Your task to perform on an android device: Open Google Chrome and open the bookmarks view Image 0: 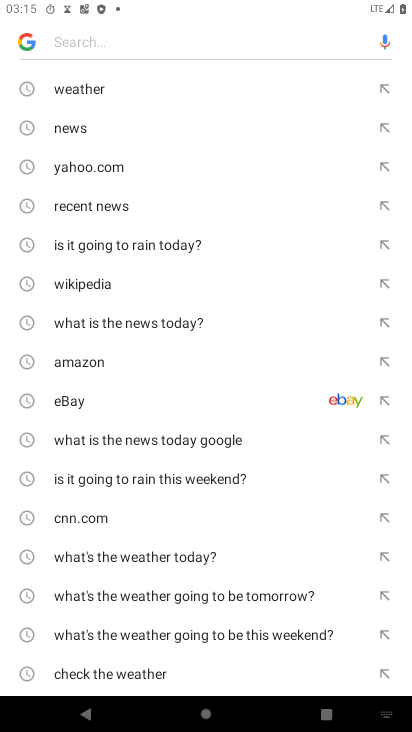
Step 0: press home button
Your task to perform on an android device: Open Google Chrome and open the bookmarks view Image 1: 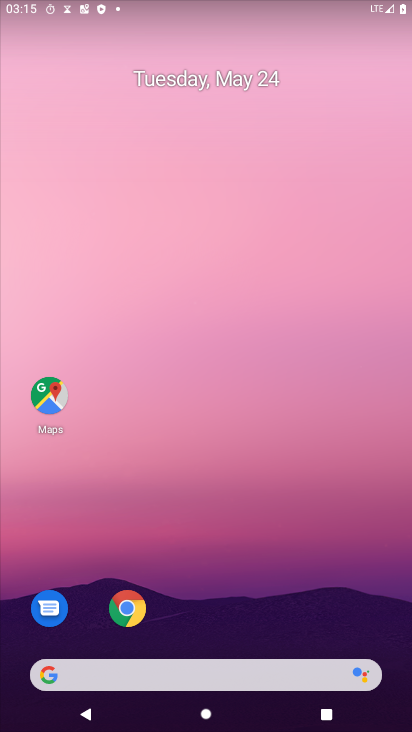
Step 1: drag from (233, 625) to (171, 148)
Your task to perform on an android device: Open Google Chrome and open the bookmarks view Image 2: 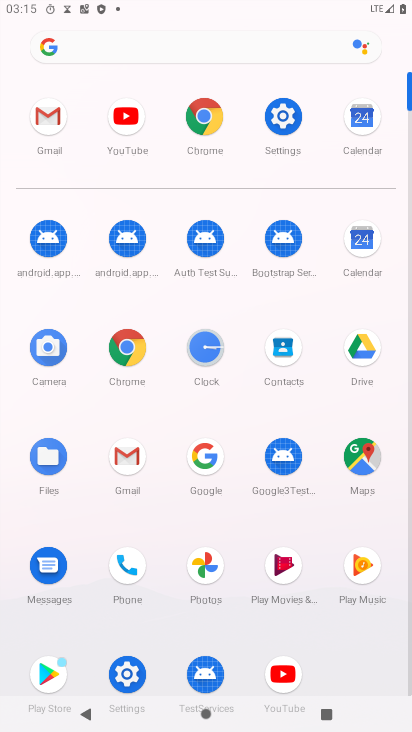
Step 2: click (203, 118)
Your task to perform on an android device: Open Google Chrome and open the bookmarks view Image 3: 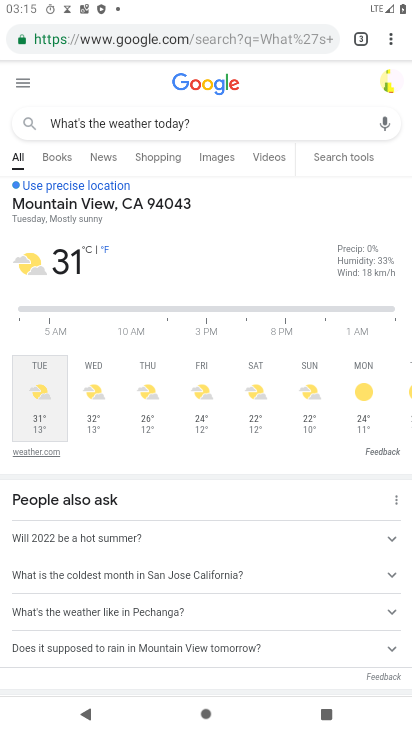
Step 3: click (384, 39)
Your task to perform on an android device: Open Google Chrome and open the bookmarks view Image 4: 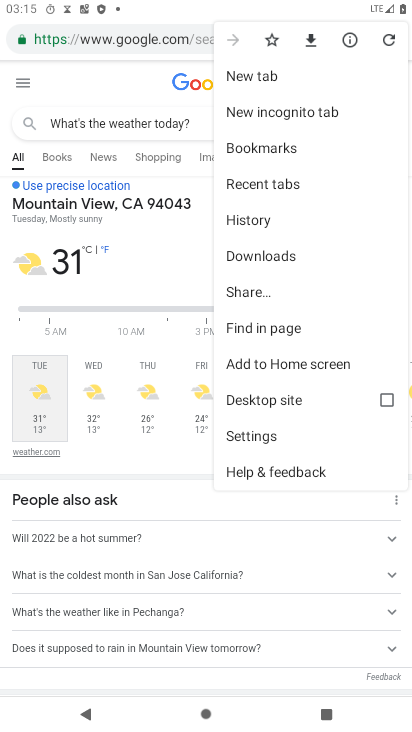
Step 4: click (262, 152)
Your task to perform on an android device: Open Google Chrome and open the bookmarks view Image 5: 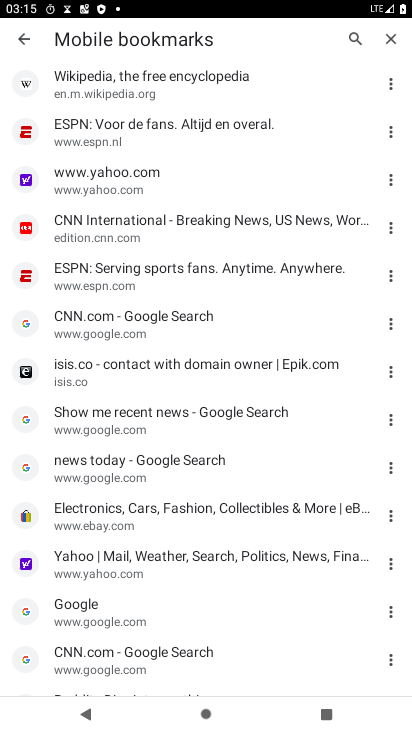
Step 5: task complete